Your task to perform on an android device: Search for sushi restaurants on Maps Image 0: 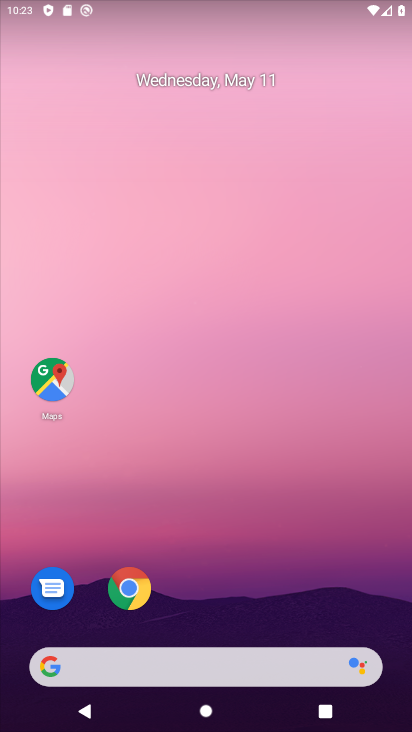
Step 0: click (51, 376)
Your task to perform on an android device: Search for sushi restaurants on Maps Image 1: 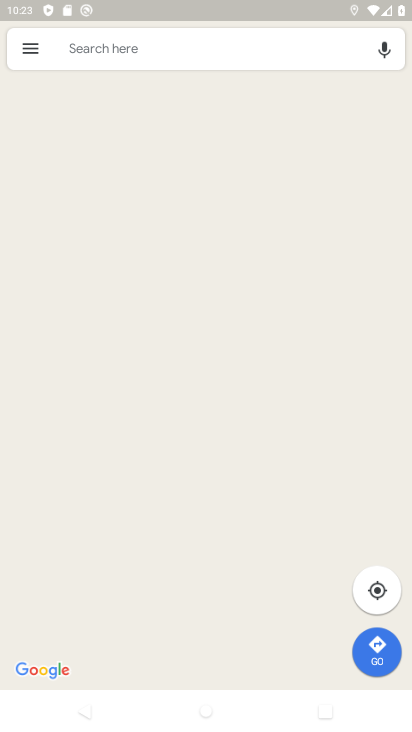
Step 1: click (139, 57)
Your task to perform on an android device: Search for sushi restaurants on Maps Image 2: 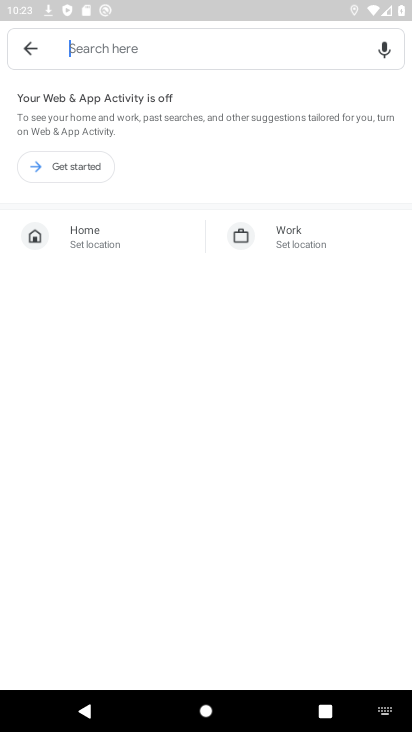
Step 2: type "sushi"
Your task to perform on an android device: Search for sushi restaurants on Maps Image 3: 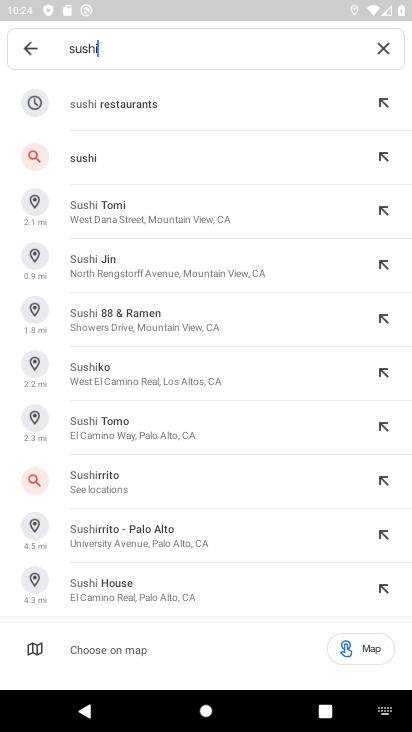
Step 3: click (151, 112)
Your task to perform on an android device: Search for sushi restaurants on Maps Image 4: 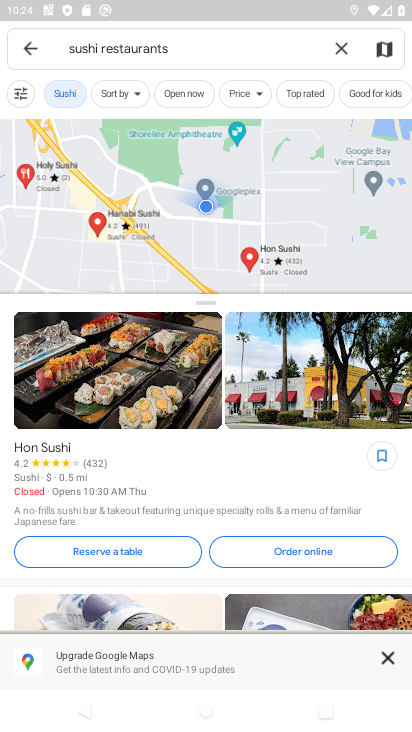
Step 4: task complete